Your task to perform on an android device: Show me popular videos on Youtube Image 0: 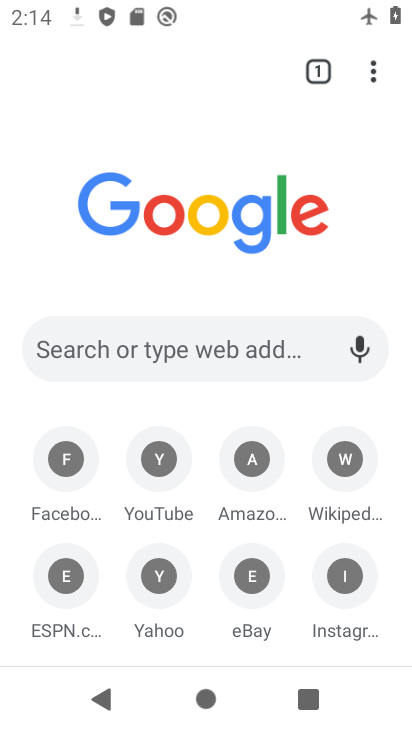
Step 0: drag from (316, 406) to (311, 292)
Your task to perform on an android device: Show me popular videos on Youtube Image 1: 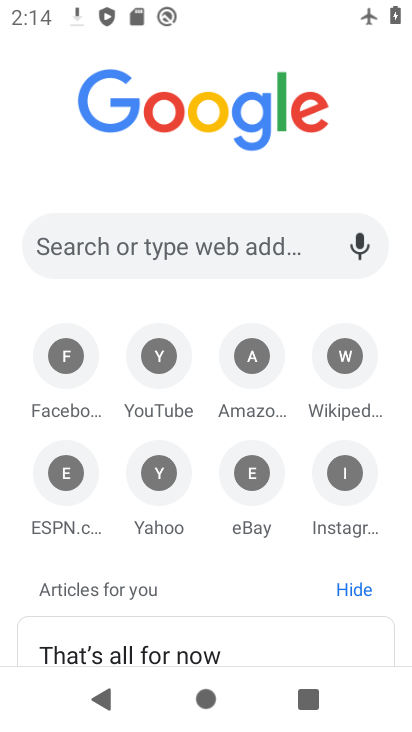
Step 1: press home button
Your task to perform on an android device: Show me popular videos on Youtube Image 2: 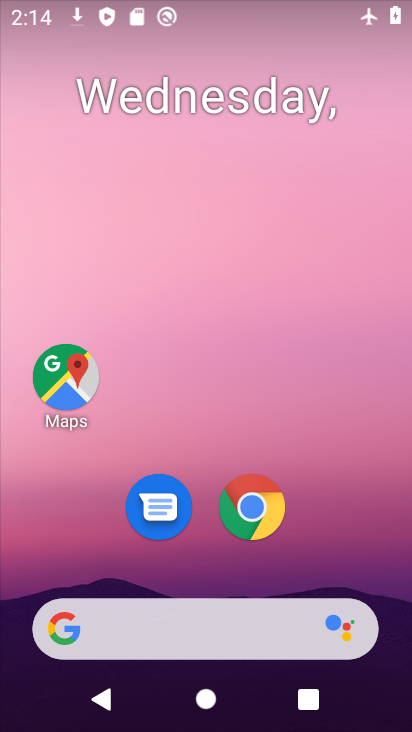
Step 2: drag from (332, 573) to (292, 144)
Your task to perform on an android device: Show me popular videos on Youtube Image 3: 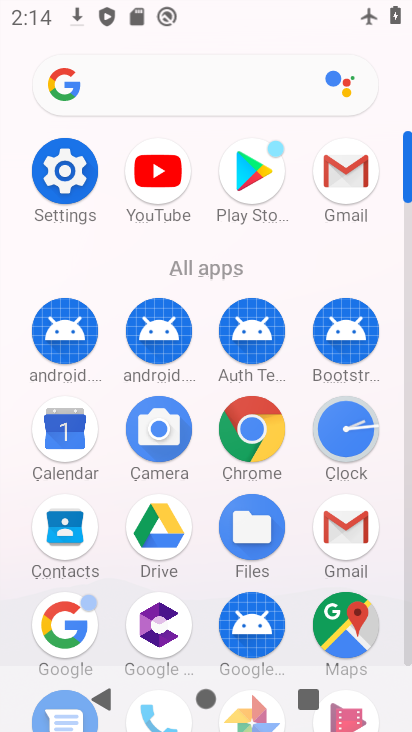
Step 3: click (162, 184)
Your task to perform on an android device: Show me popular videos on Youtube Image 4: 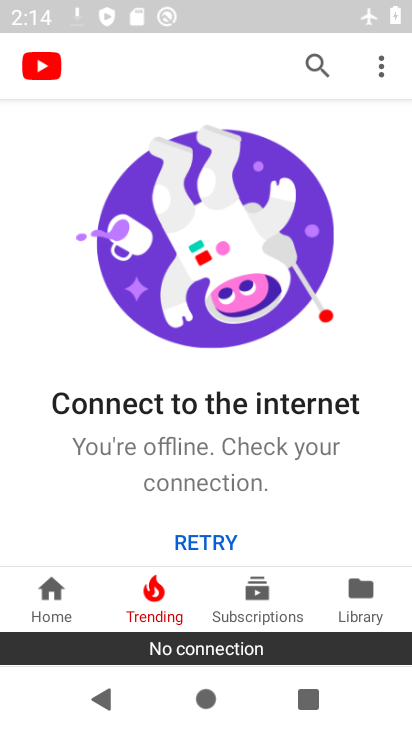
Step 4: task complete